Your task to perform on an android device: What's the weather going to be tomorrow? Image 0: 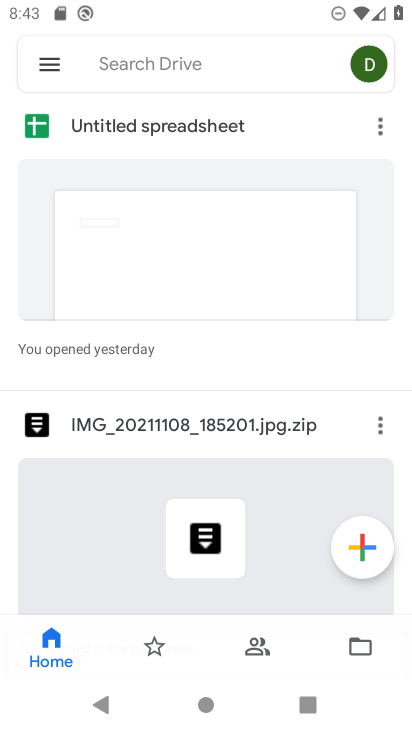
Step 0: press home button
Your task to perform on an android device: What's the weather going to be tomorrow? Image 1: 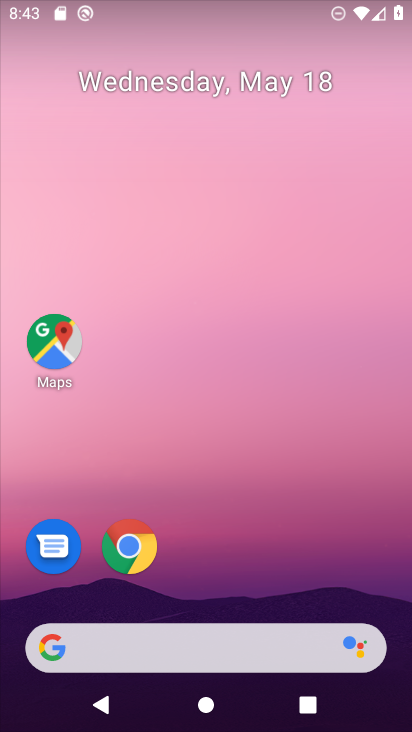
Step 1: drag from (252, 681) to (248, 411)
Your task to perform on an android device: What's the weather going to be tomorrow? Image 2: 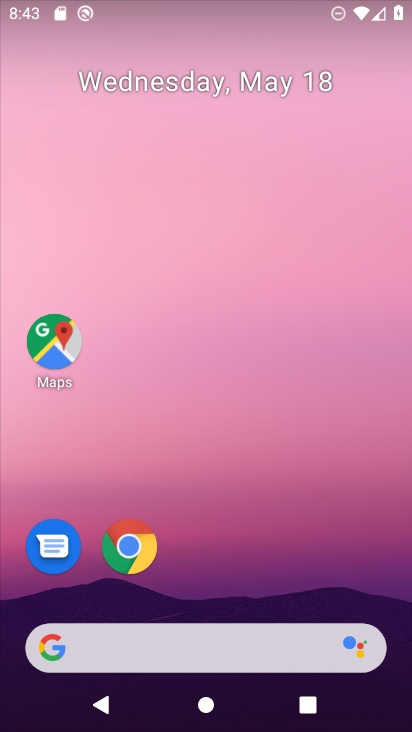
Step 2: drag from (174, 668) to (314, 195)
Your task to perform on an android device: What's the weather going to be tomorrow? Image 3: 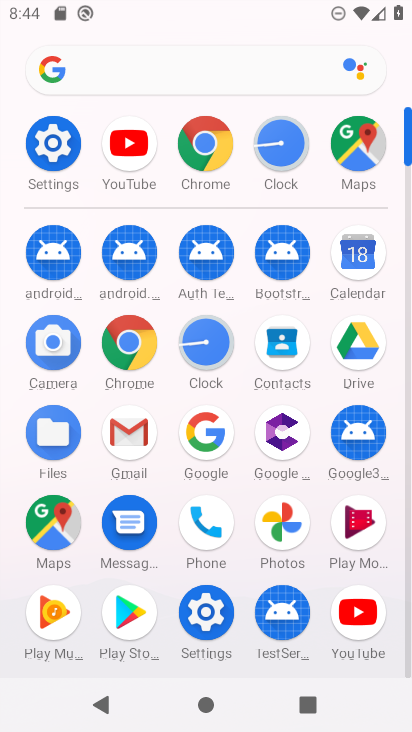
Step 3: click (142, 75)
Your task to perform on an android device: What's the weather going to be tomorrow? Image 4: 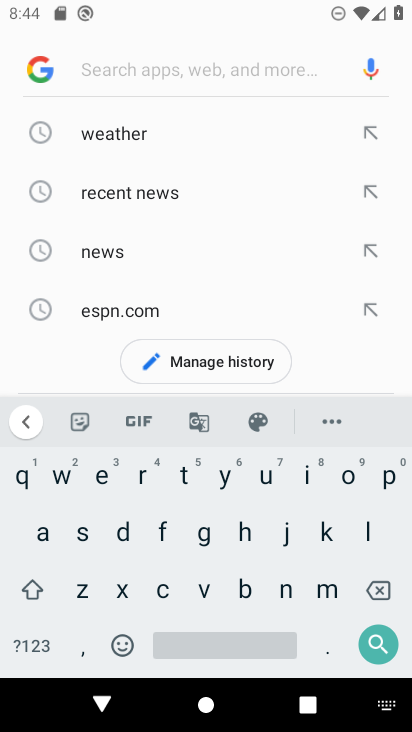
Step 4: click (130, 130)
Your task to perform on an android device: What's the weather going to be tomorrow? Image 5: 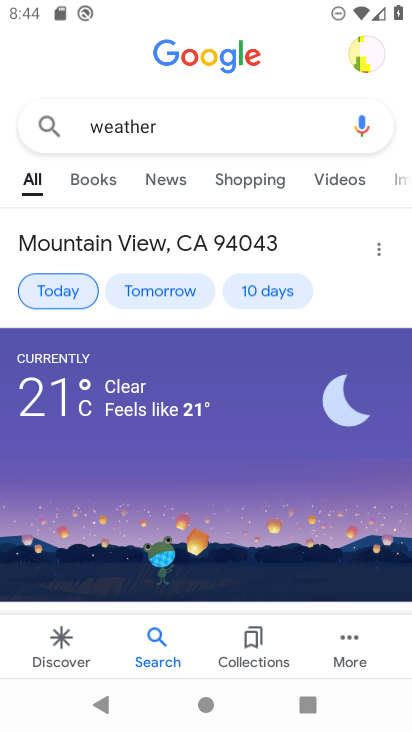
Step 5: click (162, 294)
Your task to perform on an android device: What's the weather going to be tomorrow? Image 6: 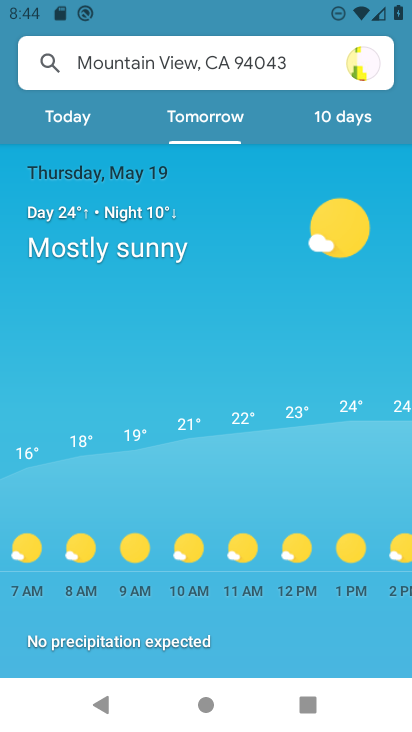
Step 6: task complete